Your task to perform on an android device: Show me popular videos on Youtube Image 0: 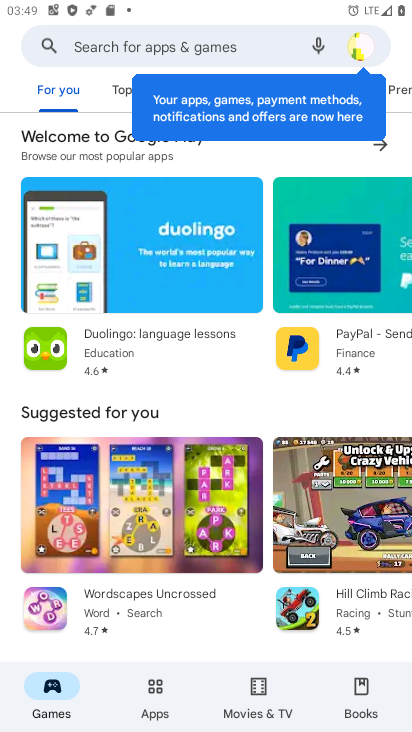
Step 0: press back button
Your task to perform on an android device: Show me popular videos on Youtube Image 1: 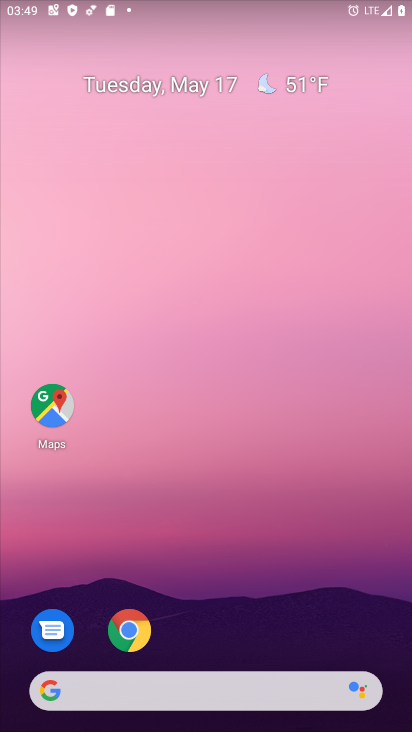
Step 1: drag from (187, 621) to (256, 61)
Your task to perform on an android device: Show me popular videos on Youtube Image 2: 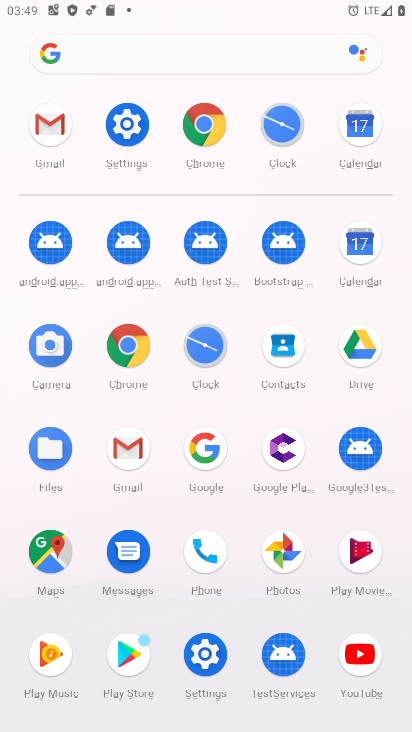
Step 2: click (359, 659)
Your task to perform on an android device: Show me popular videos on Youtube Image 3: 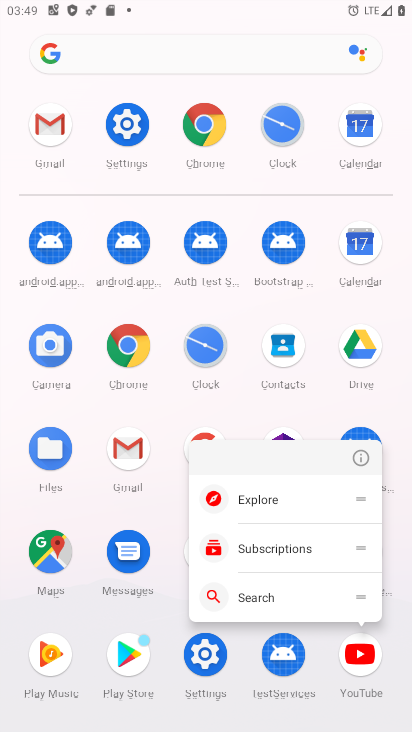
Step 3: click (362, 653)
Your task to perform on an android device: Show me popular videos on Youtube Image 4: 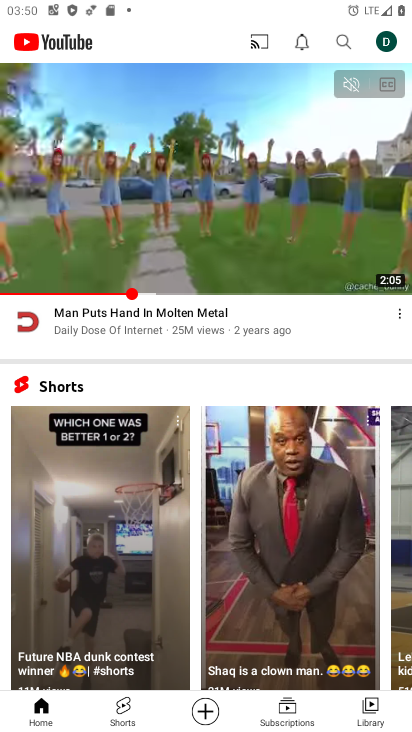
Step 4: drag from (185, 261) to (176, 700)
Your task to perform on an android device: Show me popular videos on Youtube Image 5: 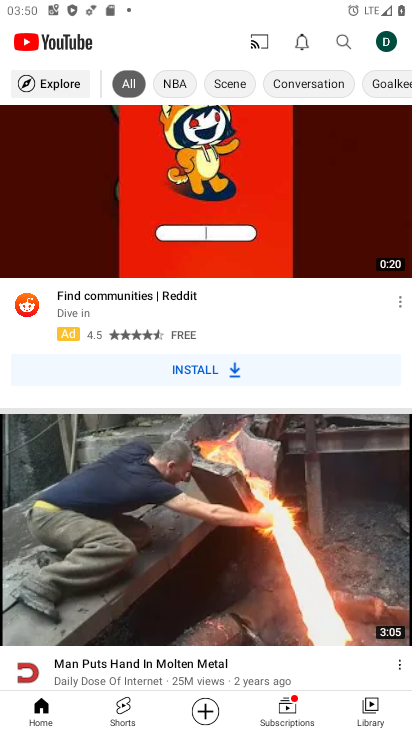
Step 5: click (45, 85)
Your task to perform on an android device: Show me popular videos on Youtube Image 6: 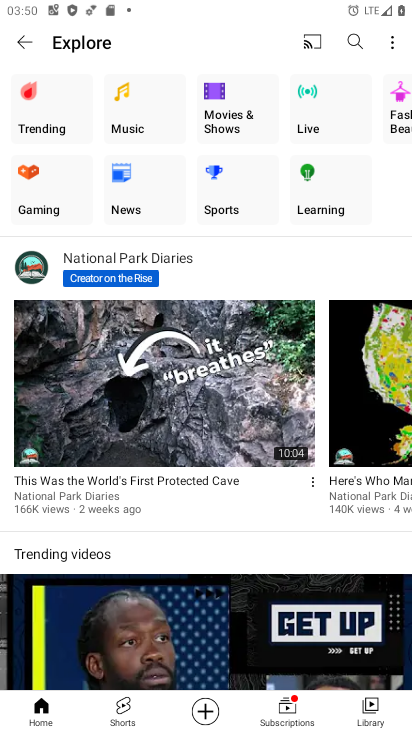
Step 6: click (41, 105)
Your task to perform on an android device: Show me popular videos on Youtube Image 7: 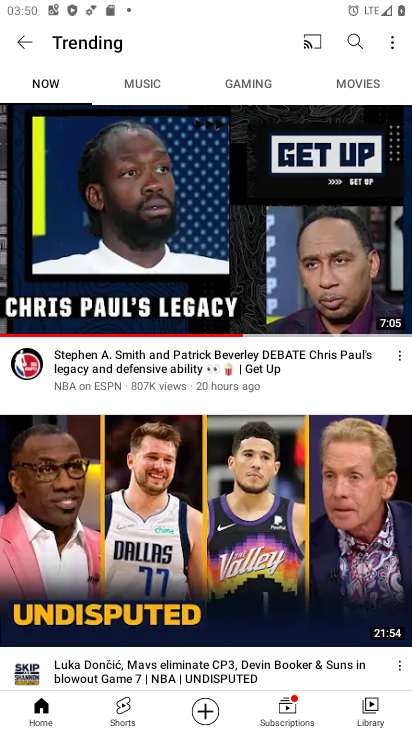
Step 7: task complete